Your task to perform on an android device: Open sound settings Image 0: 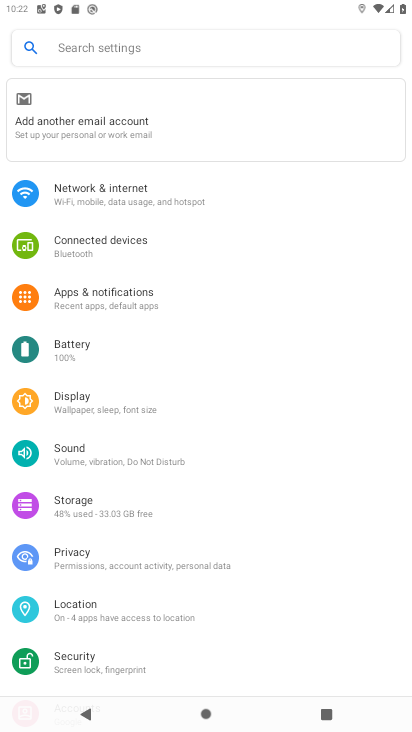
Step 0: click (109, 462)
Your task to perform on an android device: Open sound settings Image 1: 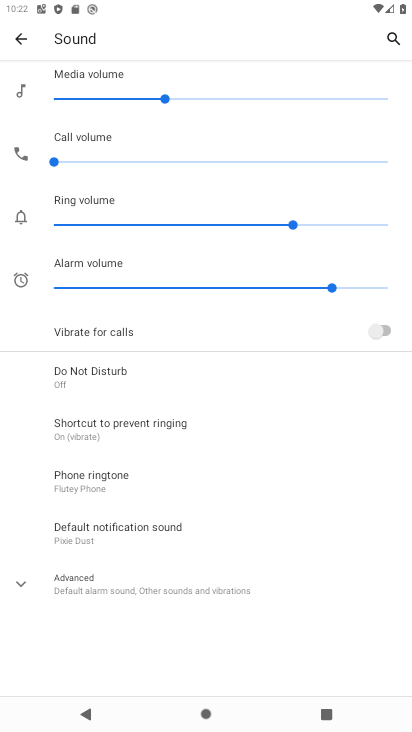
Step 1: click (53, 570)
Your task to perform on an android device: Open sound settings Image 2: 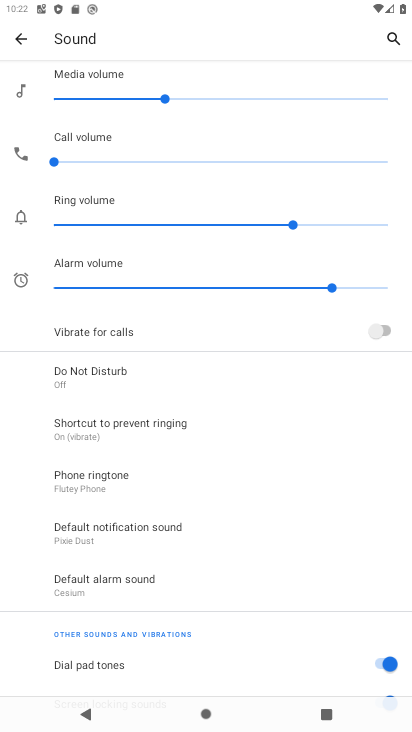
Step 2: task complete